Your task to perform on an android device: turn on improve location accuracy Image 0: 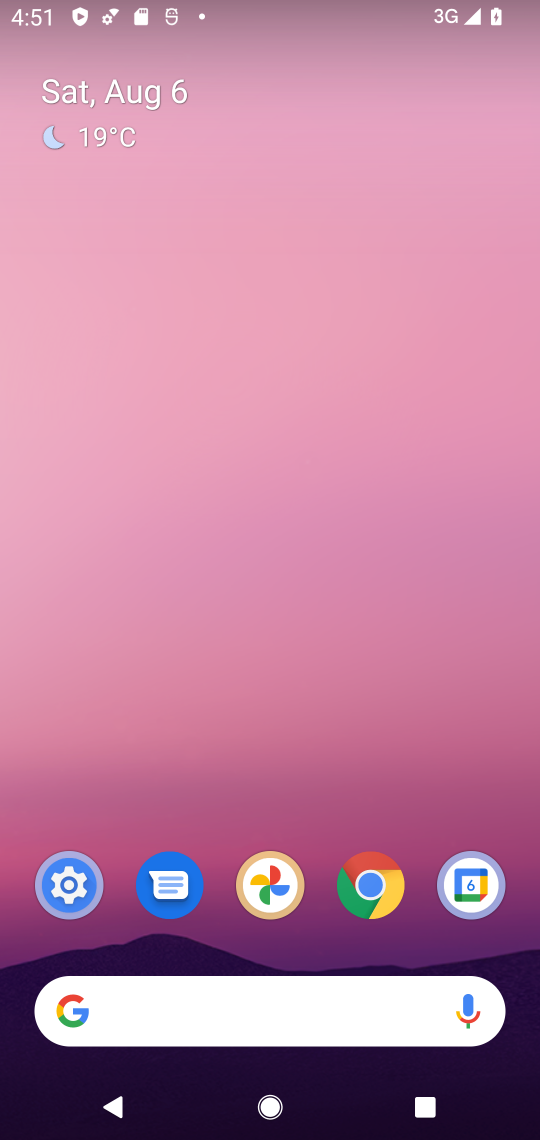
Step 0: drag from (419, 947) to (329, 41)
Your task to perform on an android device: turn on improve location accuracy Image 1: 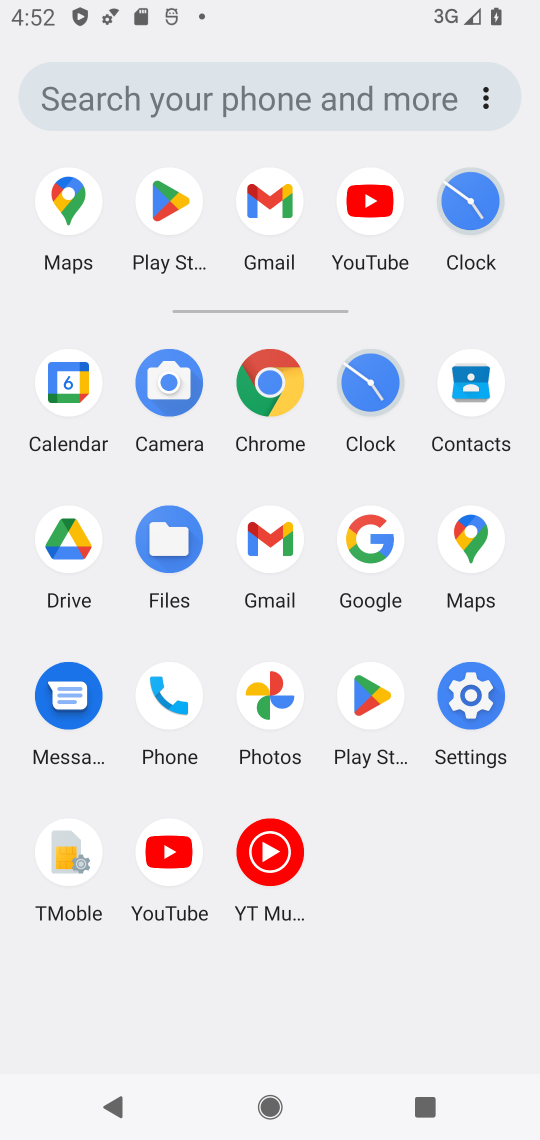
Step 1: click (481, 707)
Your task to perform on an android device: turn on improve location accuracy Image 2: 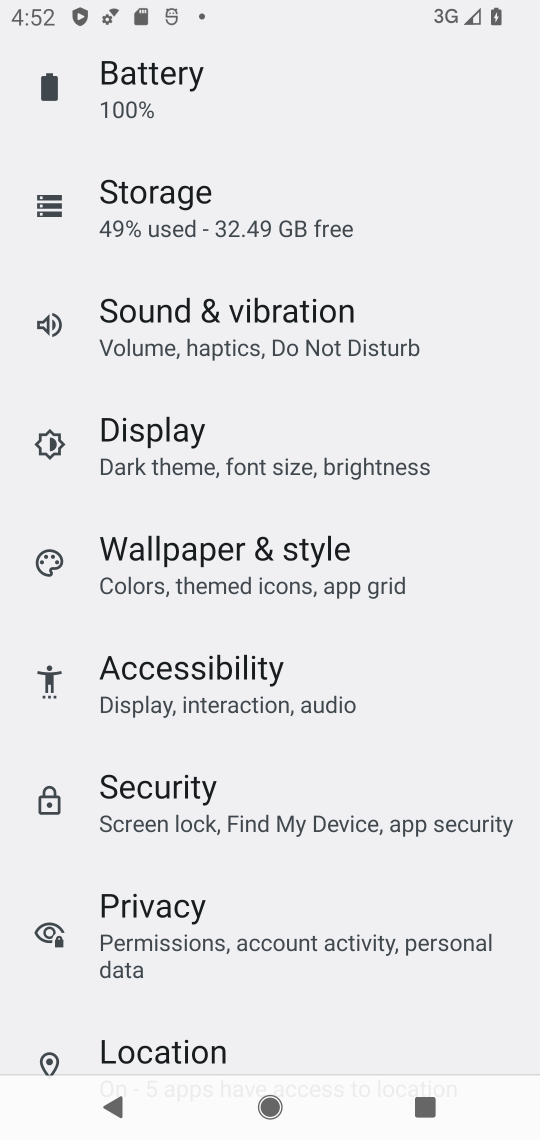
Step 2: click (189, 1040)
Your task to perform on an android device: turn on improve location accuracy Image 3: 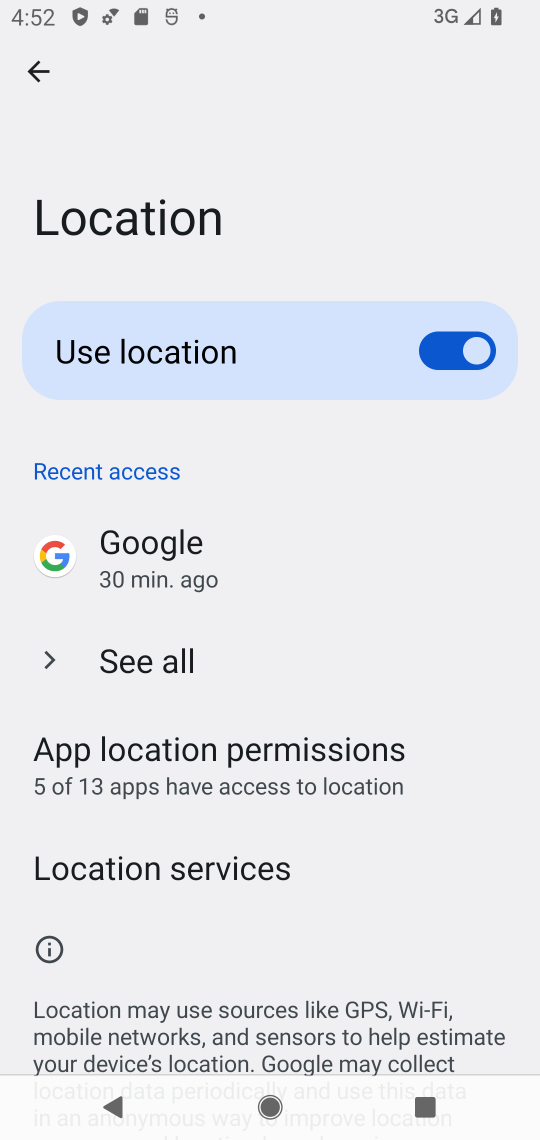
Step 3: click (192, 876)
Your task to perform on an android device: turn on improve location accuracy Image 4: 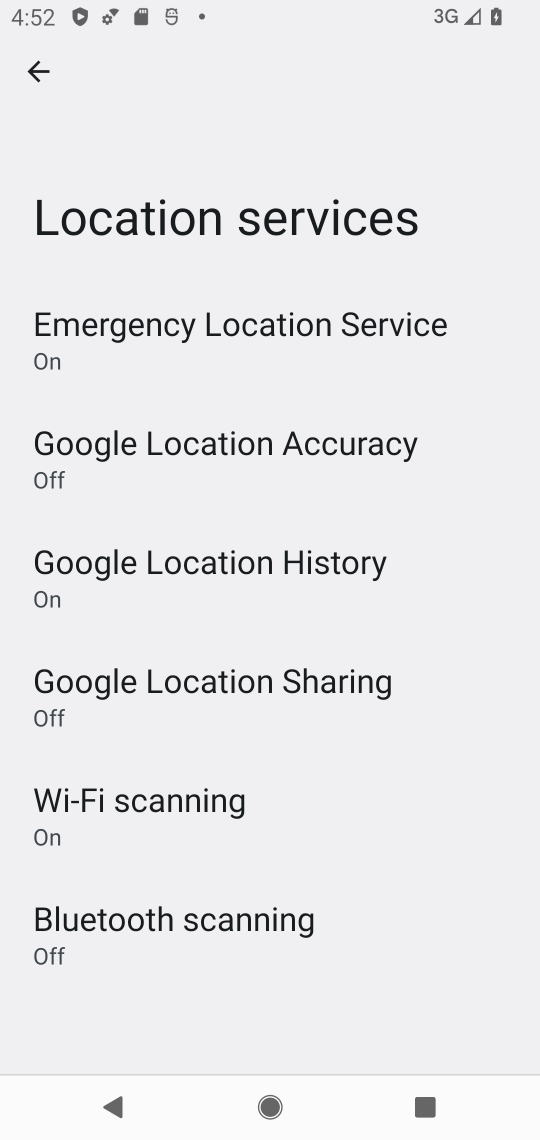
Step 4: click (217, 470)
Your task to perform on an android device: turn on improve location accuracy Image 5: 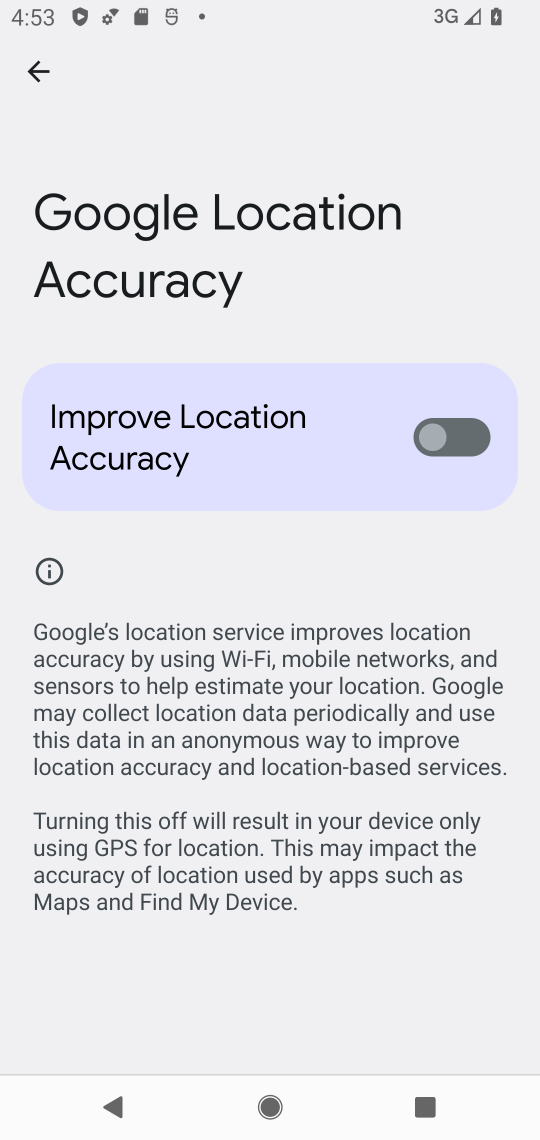
Step 5: click (440, 431)
Your task to perform on an android device: turn on improve location accuracy Image 6: 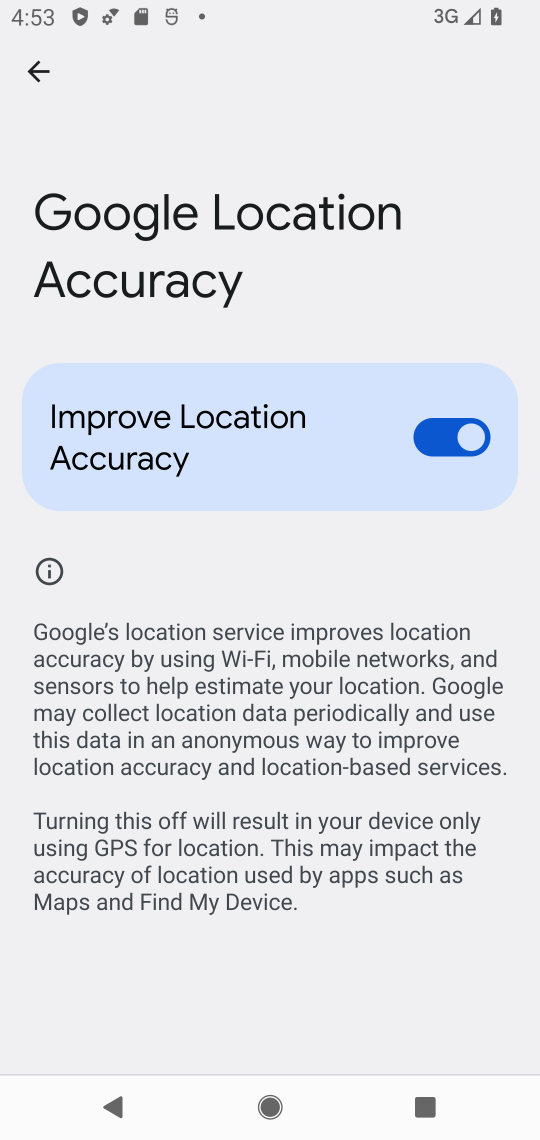
Step 6: task complete